Your task to perform on an android device: turn on location history Image 0: 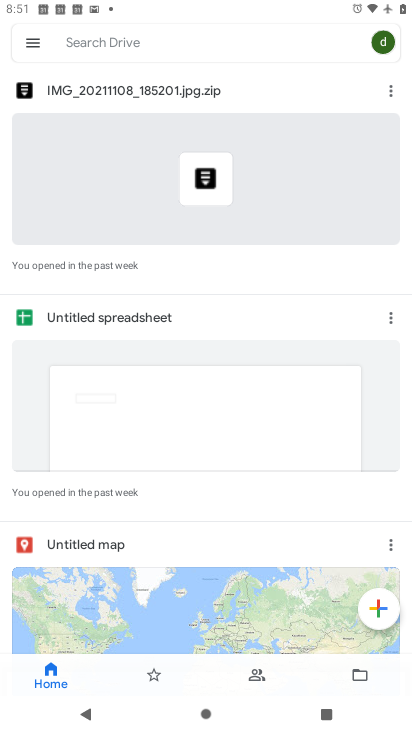
Step 0: press home button
Your task to perform on an android device: turn on location history Image 1: 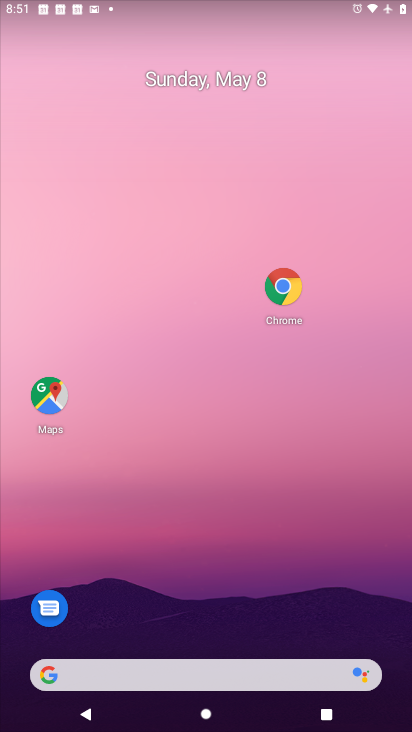
Step 1: drag from (222, 675) to (307, 134)
Your task to perform on an android device: turn on location history Image 2: 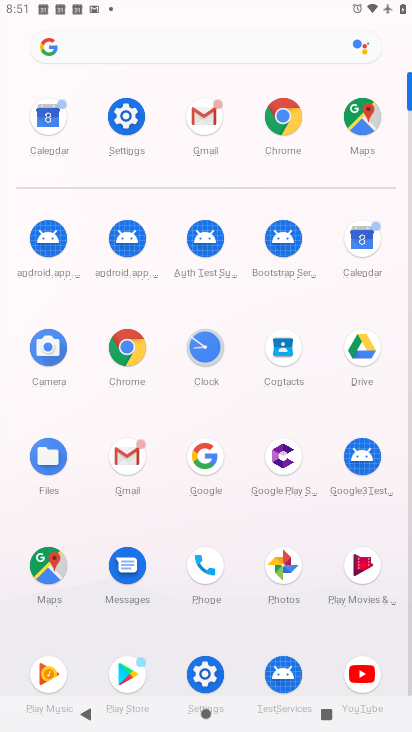
Step 2: click (363, 122)
Your task to perform on an android device: turn on location history Image 3: 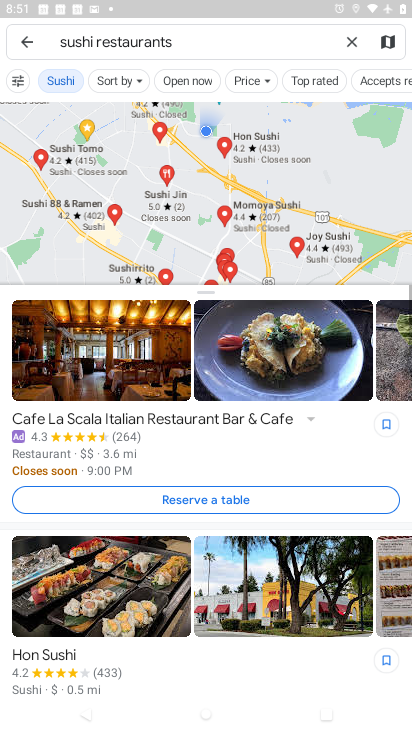
Step 3: click (27, 40)
Your task to perform on an android device: turn on location history Image 4: 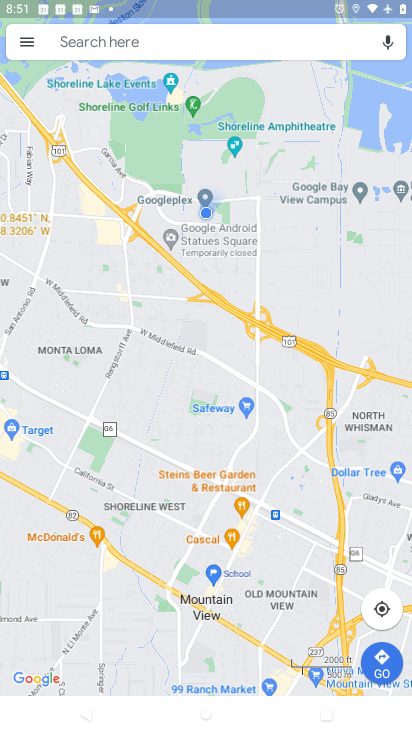
Step 4: click (28, 43)
Your task to perform on an android device: turn on location history Image 5: 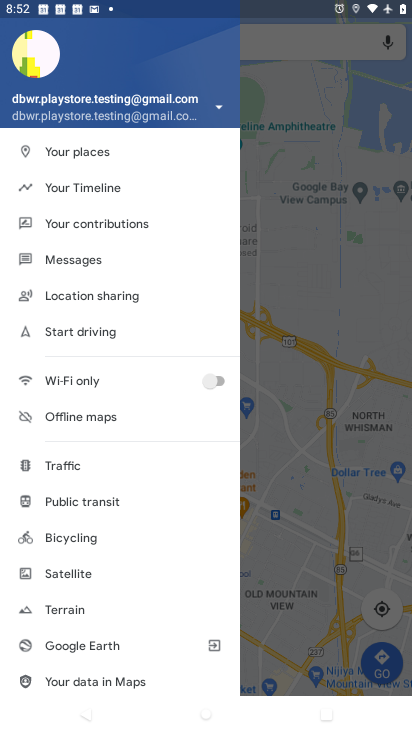
Step 5: click (112, 189)
Your task to perform on an android device: turn on location history Image 6: 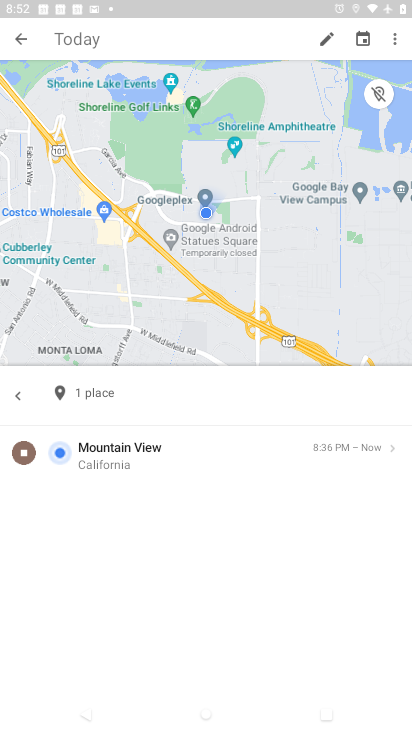
Step 6: click (395, 40)
Your task to perform on an android device: turn on location history Image 7: 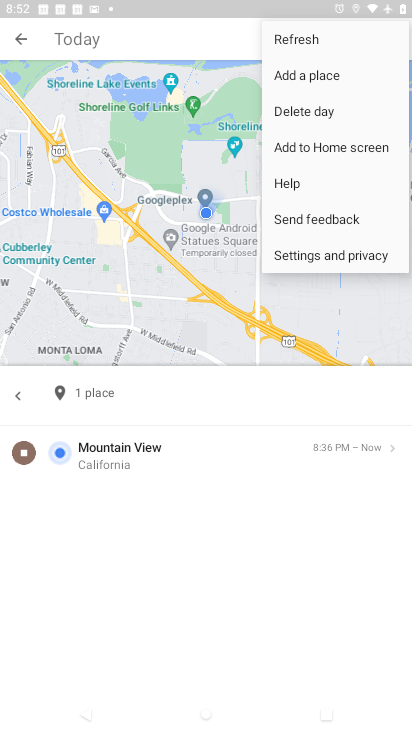
Step 7: click (323, 256)
Your task to perform on an android device: turn on location history Image 8: 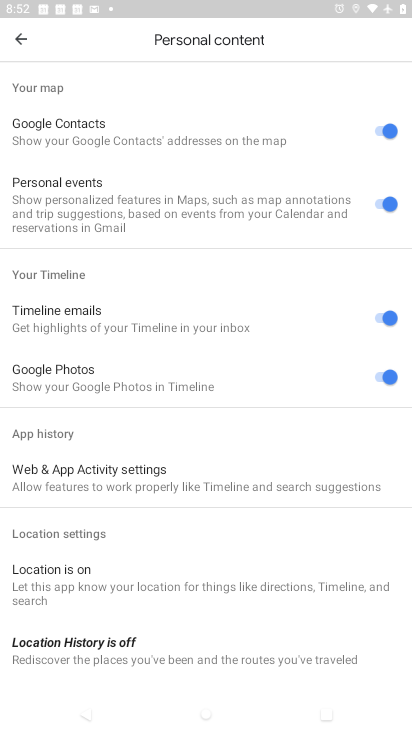
Step 8: drag from (147, 563) to (306, 306)
Your task to perform on an android device: turn on location history Image 9: 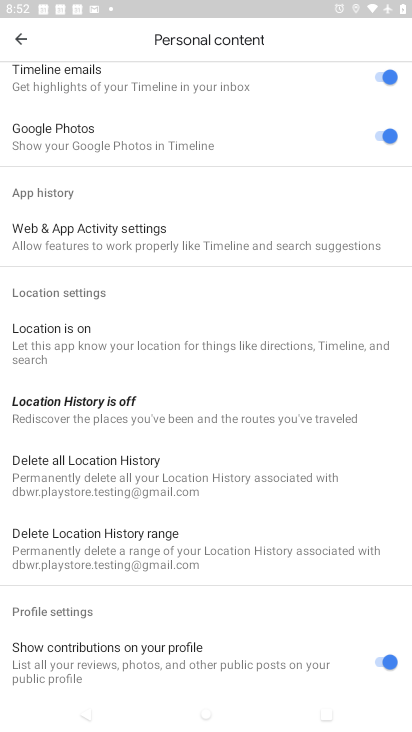
Step 9: click (132, 414)
Your task to perform on an android device: turn on location history Image 10: 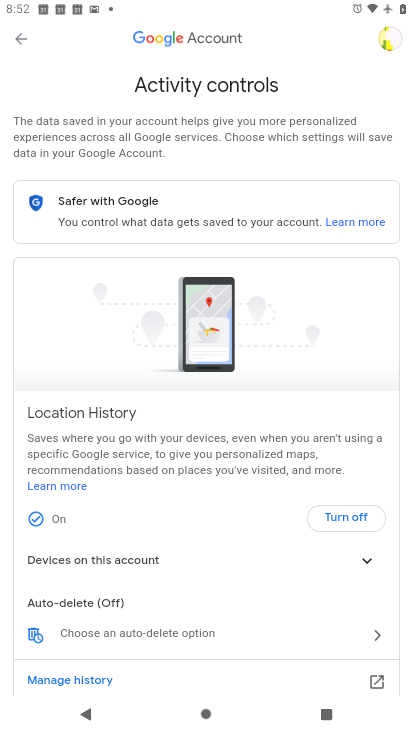
Step 10: task complete